Your task to perform on an android device: turn off location history Image 0: 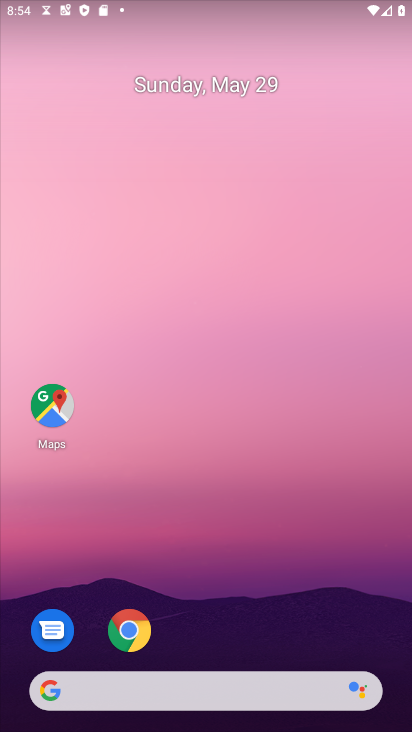
Step 0: drag from (245, 627) to (244, 171)
Your task to perform on an android device: turn off location history Image 1: 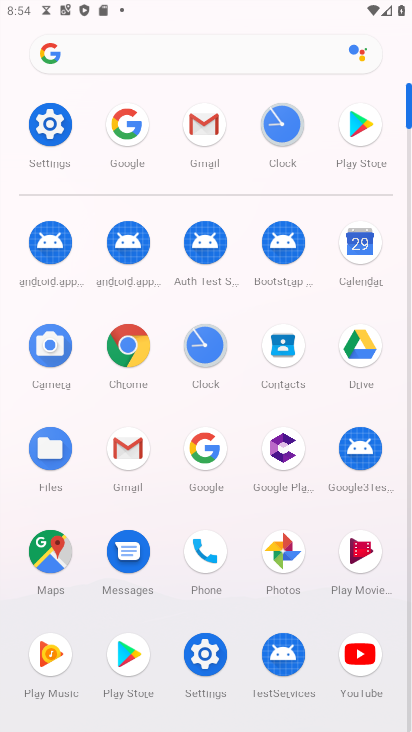
Step 1: click (51, 131)
Your task to perform on an android device: turn off location history Image 2: 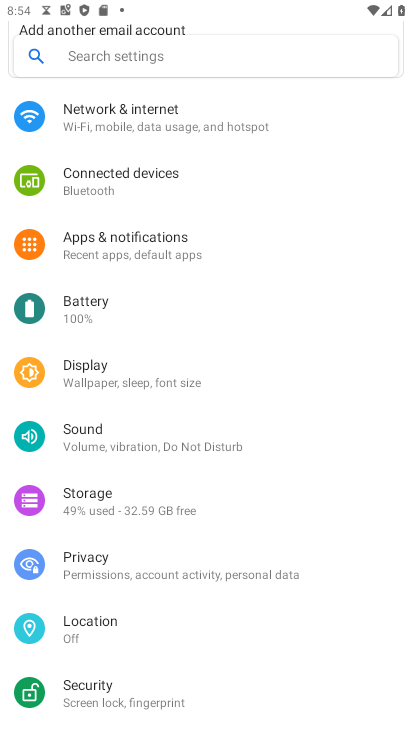
Step 2: click (107, 629)
Your task to perform on an android device: turn off location history Image 3: 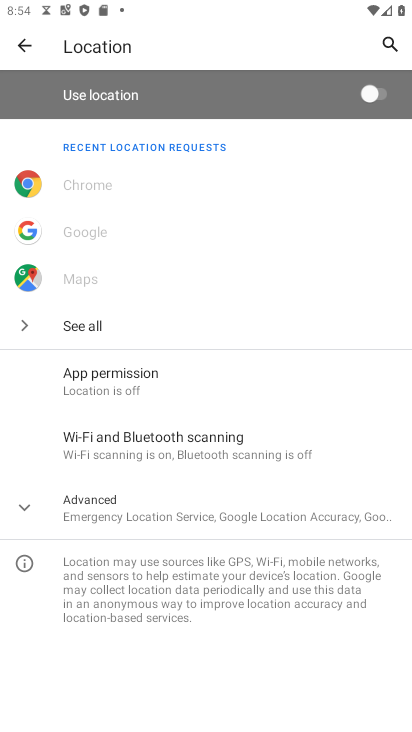
Step 3: click (184, 500)
Your task to perform on an android device: turn off location history Image 4: 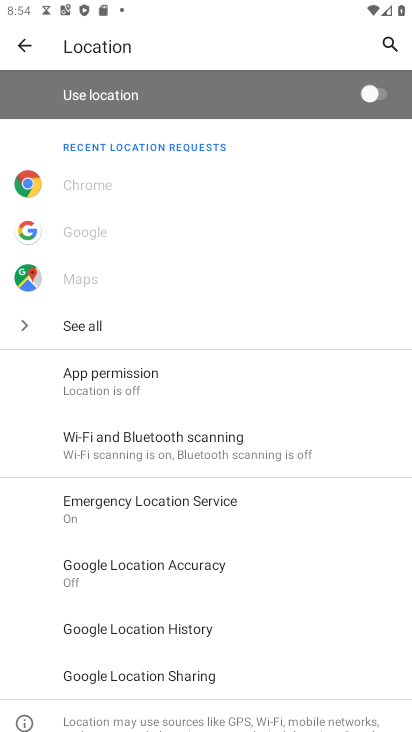
Step 4: click (169, 623)
Your task to perform on an android device: turn off location history Image 5: 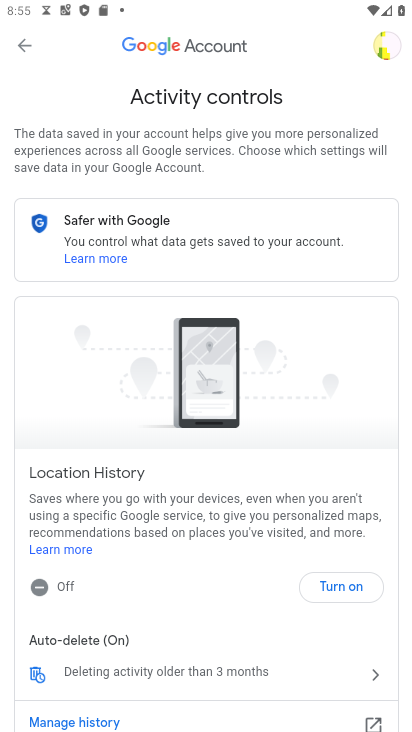
Step 5: task complete